Your task to perform on an android device: Go to sound settings Image 0: 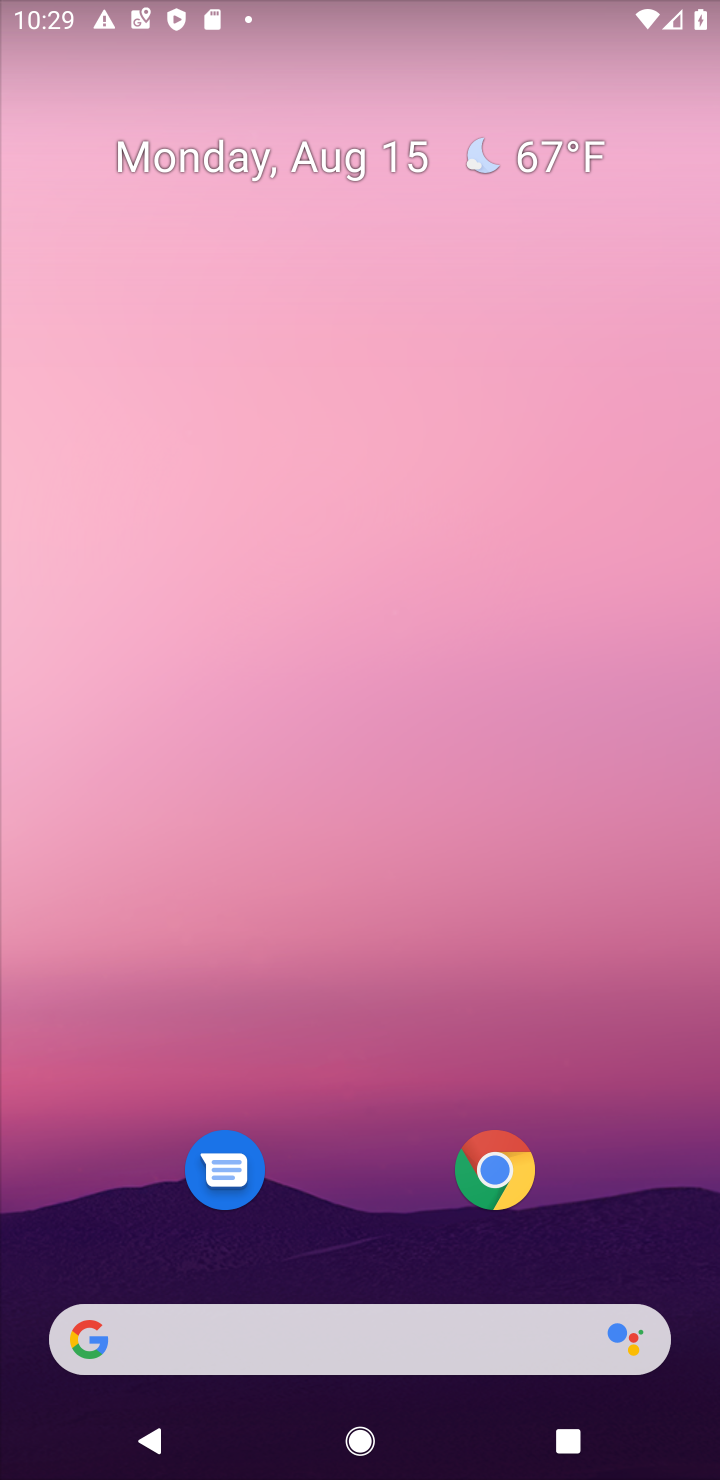
Step 0: press home button
Your task to perform on an android device: Go to sound settings Image 1: 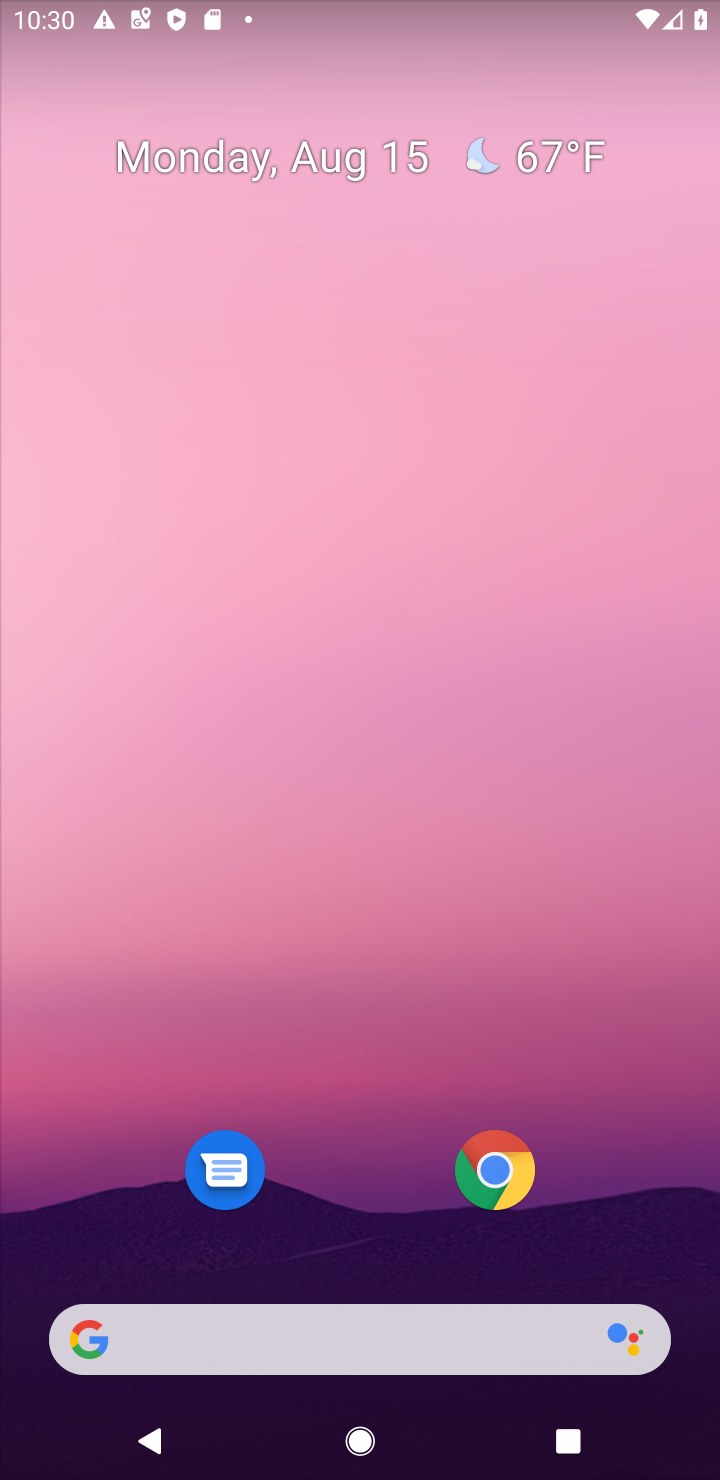
Step 1: drag from (364, 1256) to (403, 134)
Your task to perform on an android device: Go to sound settings Image 2: 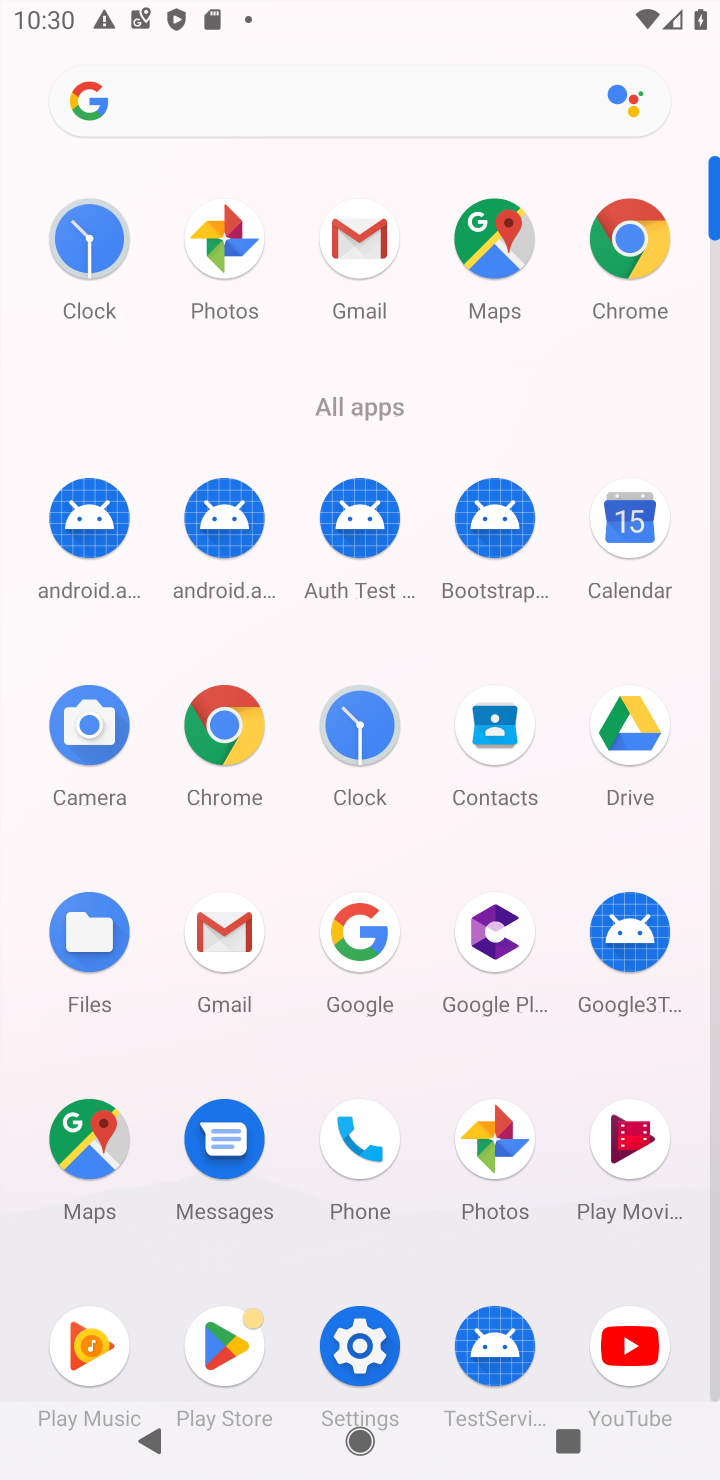
Step 2: click (349, 1343)
Your task to perform on an android device: Go to sound settings Image 3: 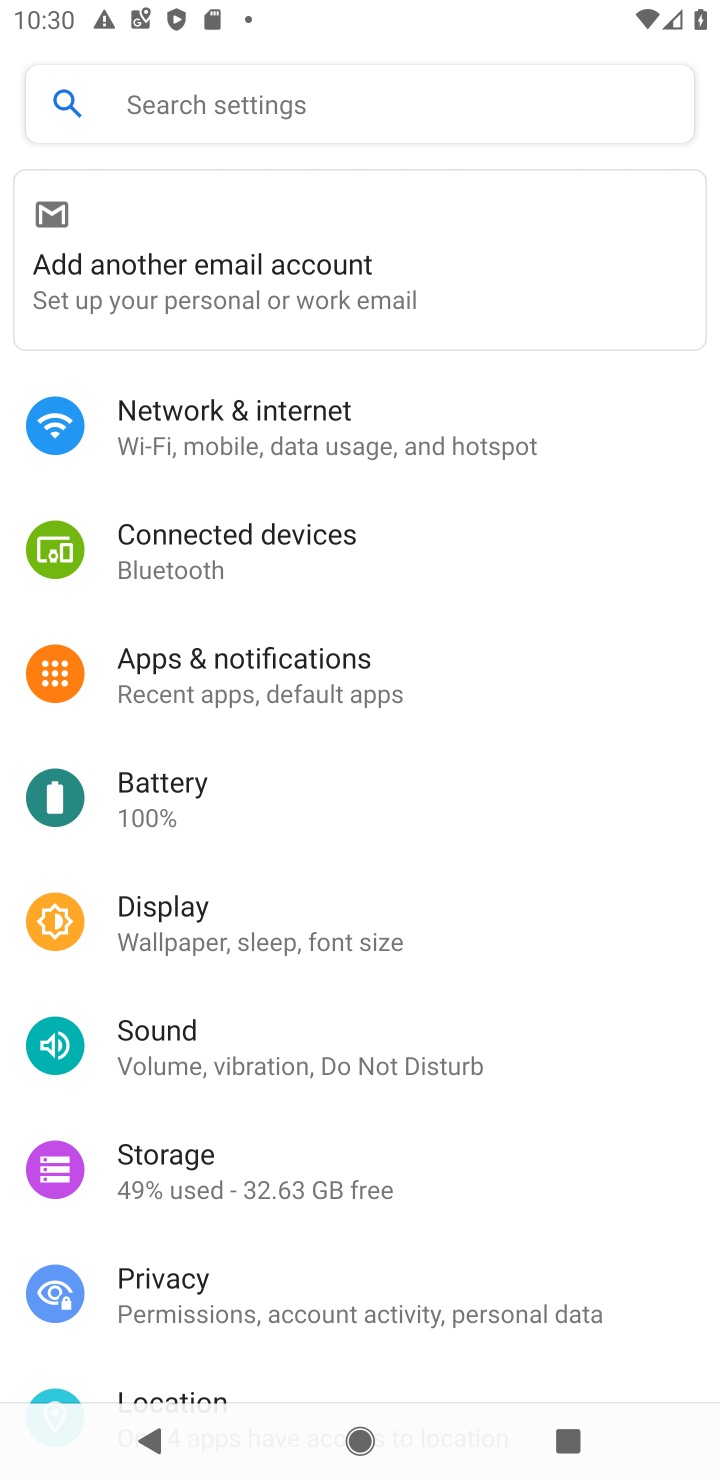
Step 3: click (225, 1035)
Your task to perform on an android device: Go to sound settings Image 4: 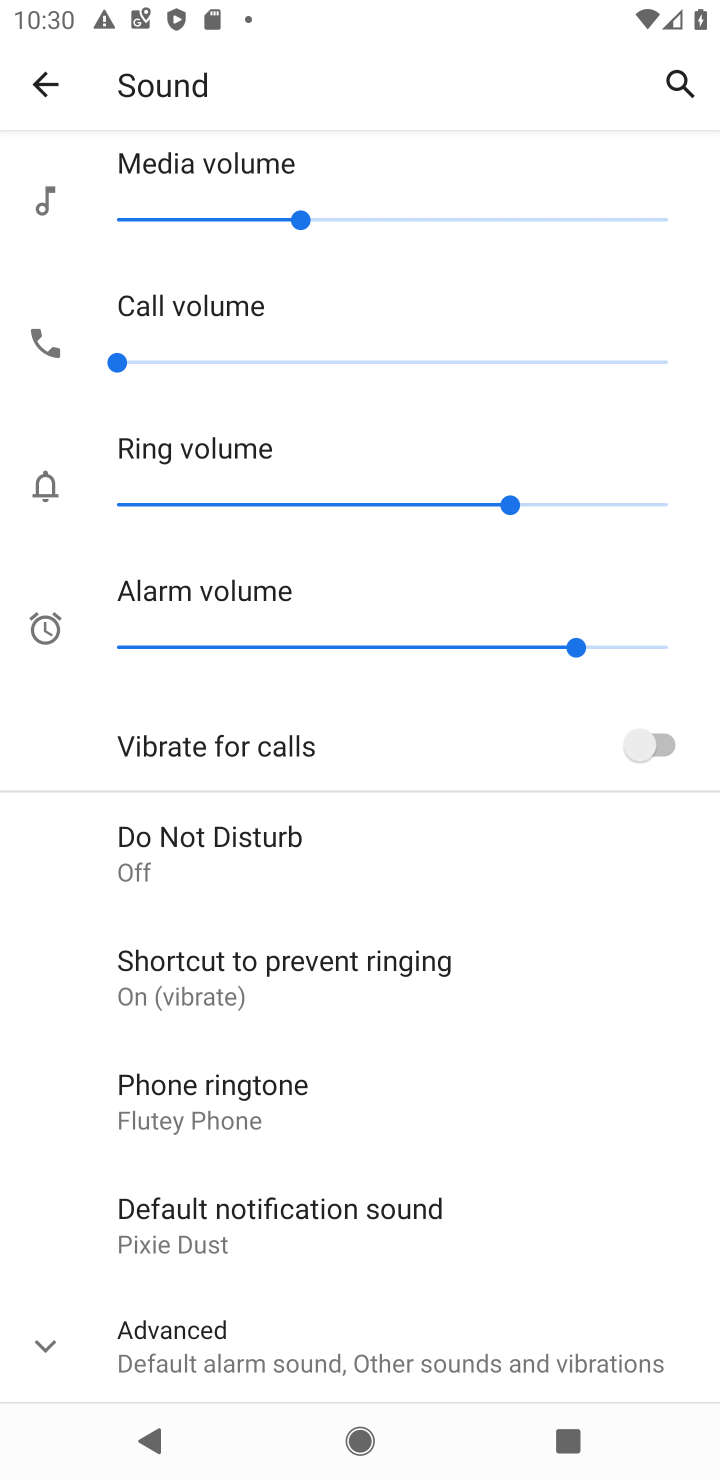
Step 4: click (51, 1339)
Your task to perform on an android device: Go to sound settings Image 5: 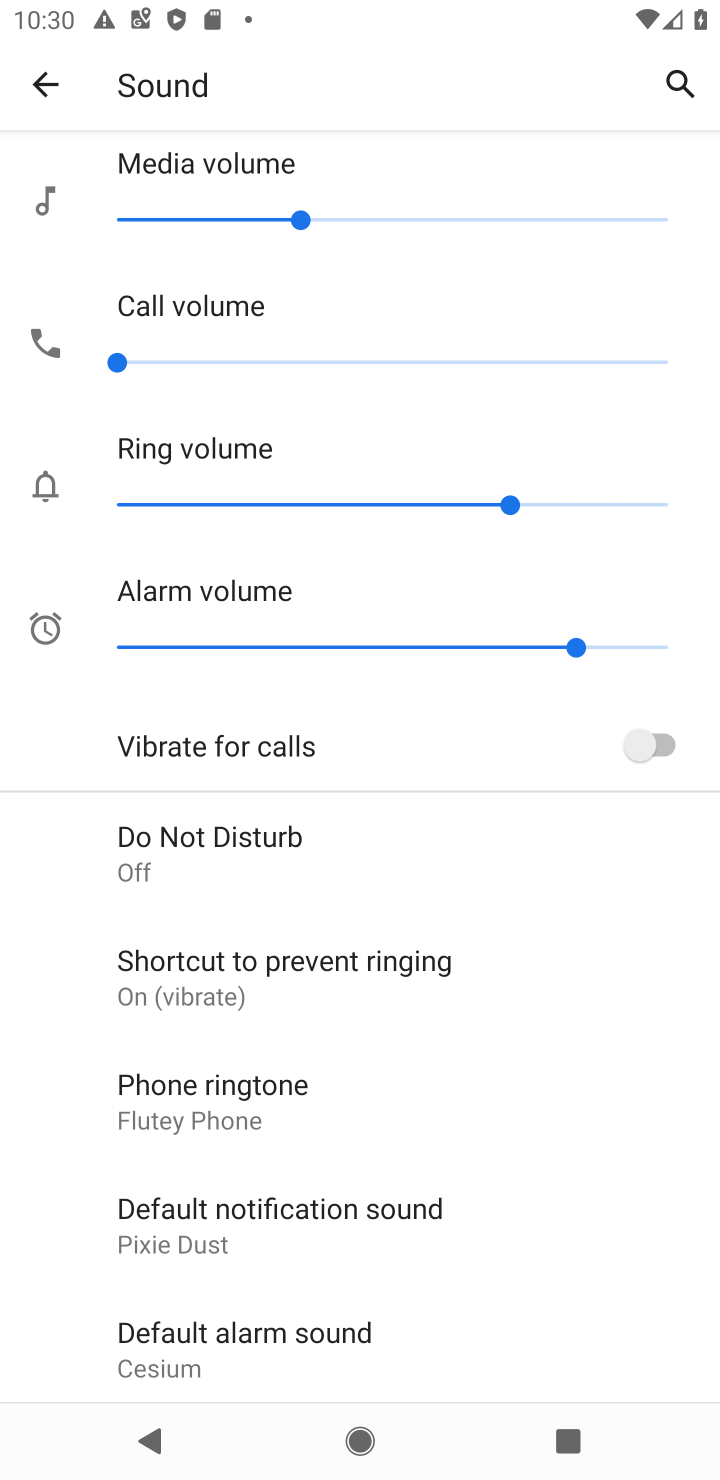
Step 5: task complete